Your task to perform on an android device: remove spam from my inbox in the gmail app Image 0: 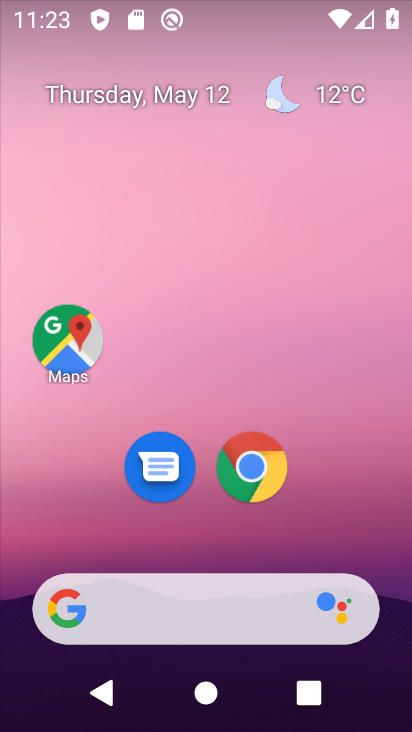
Step 0: drag from (355, 543) to (259, 35)
Your task to perform on an android device: remove spam from my inbox in the gmail app Image 1: 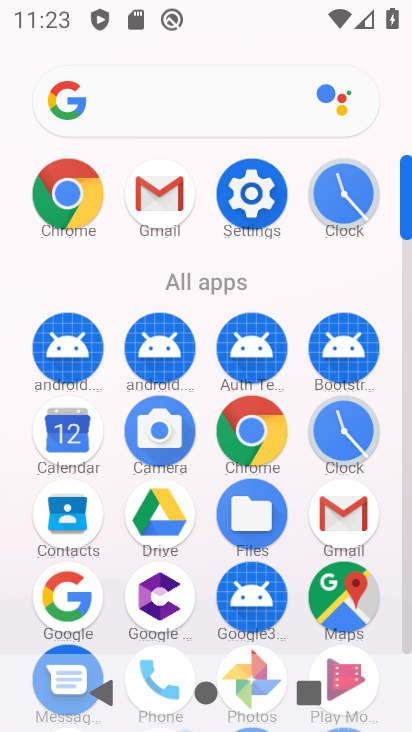
Step 1: drag from (3, 522) to (14, 218)
Your task to perform on an android device: remove spam from my inbox in the gmail app Image 2: 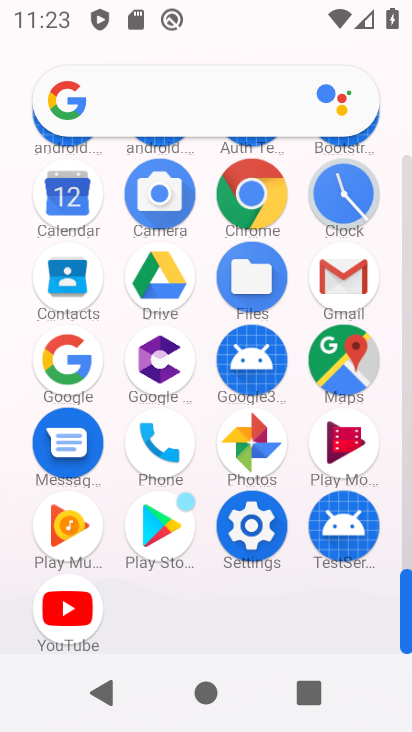
Step 2: click (345, 279)
Your task to perform on an android device: remove spam from my inbox in the gmail app Image 3: 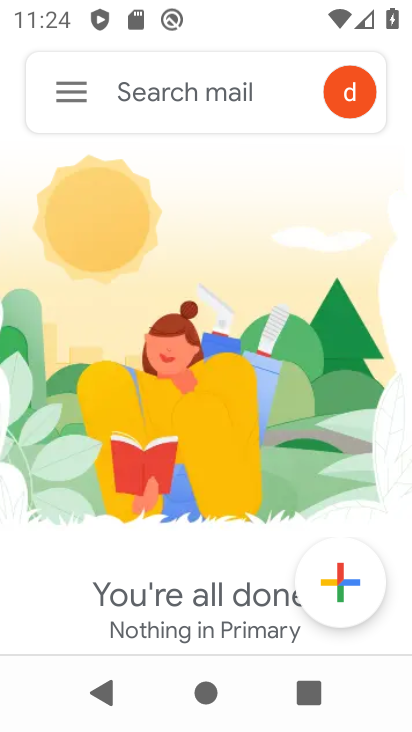
Step 3: click (51, 92)
Your task to perform on an android device: remove spam from my inbox in the gmail app Image 4: 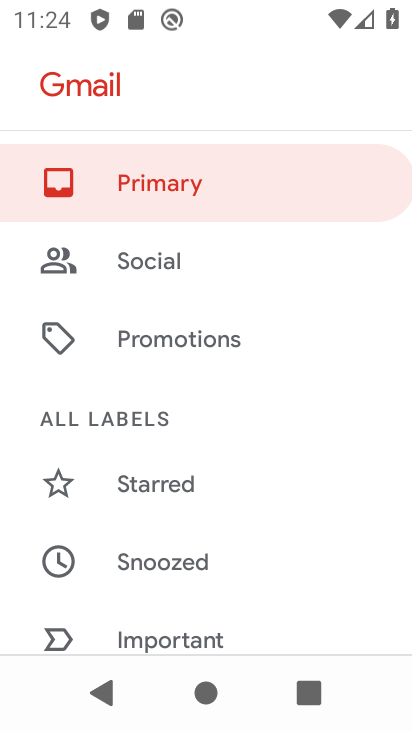
Step 4: drag from (233, 526) to (290, 161)
Your task to perform on an android device: remove spam from my inbox in the gmail app Image 5: 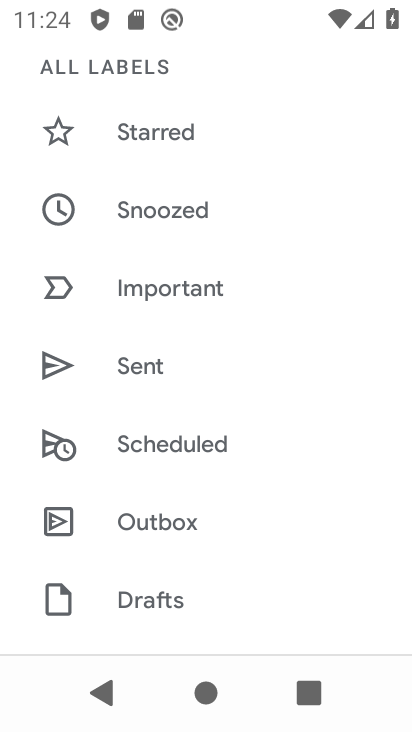
Step 5: drag from (246, 545) to (260, 166)
Your task to perform on an android device: remove spam from my inbox in the gmail app Image 6: 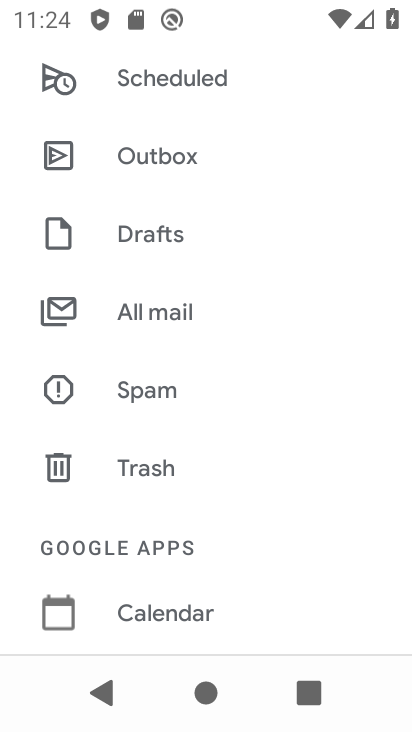
Step 6: click (150, 381)
Your task to perform on an android device: remove spam from my inbox in the gmail app Image 7: 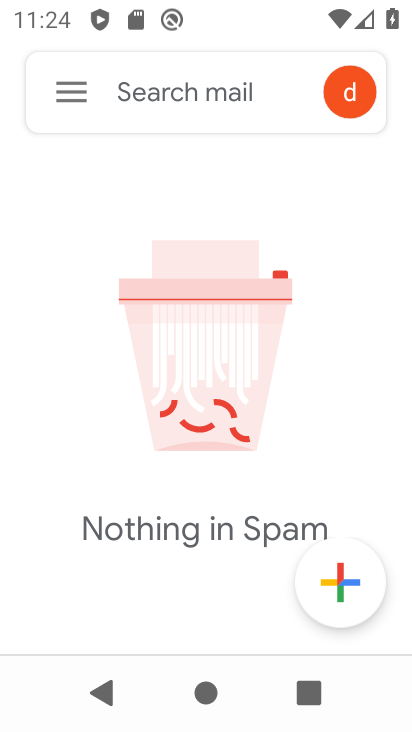
Step 7: task complete